Your task to perform on an android device: create a new album in the google photos Image 0: 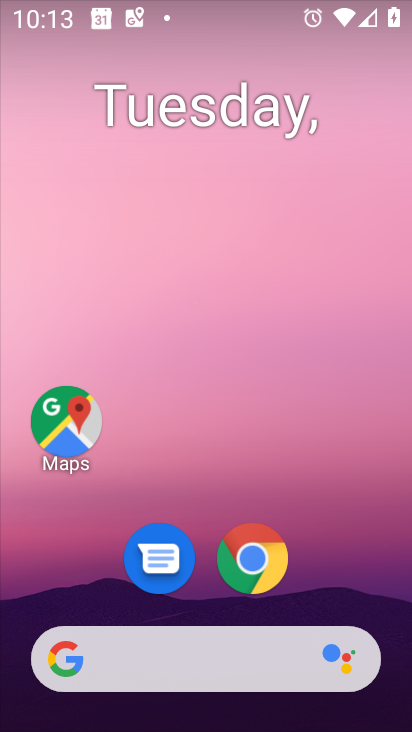
Step 0: drag from (347, 652) to (234, 124)
Your task to perform on an android device: create a new album in the google photos Image 1: 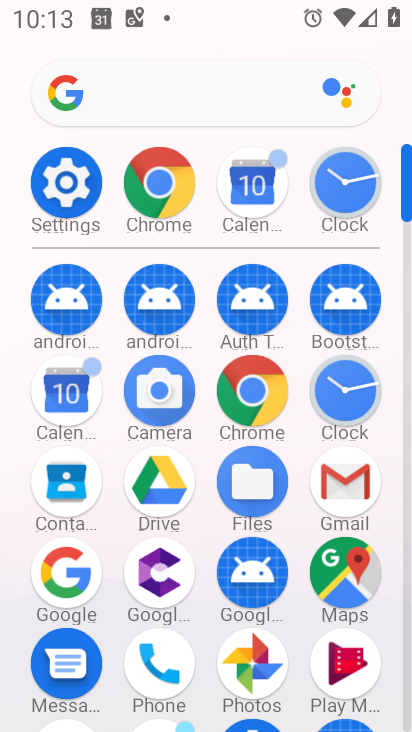
Step 1: click (258, 663)
Your task to perform on an android device: create a new album in the google photos Image 2: 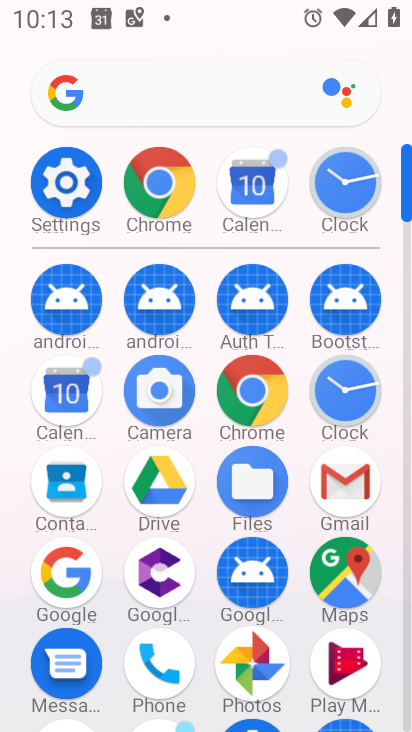
Step 2: click (257, 664)
Your task to perform on an android device: create a new album in the google photos Image 3: 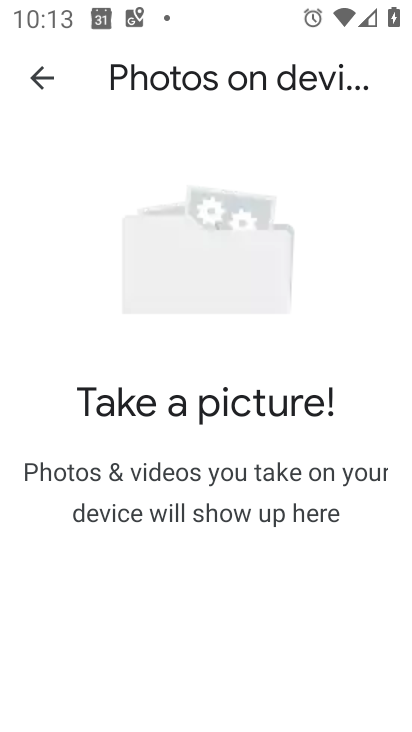
Step 3: click (255, 664)
Your task to perform on an android device: create a new album in the google photos Image 4: 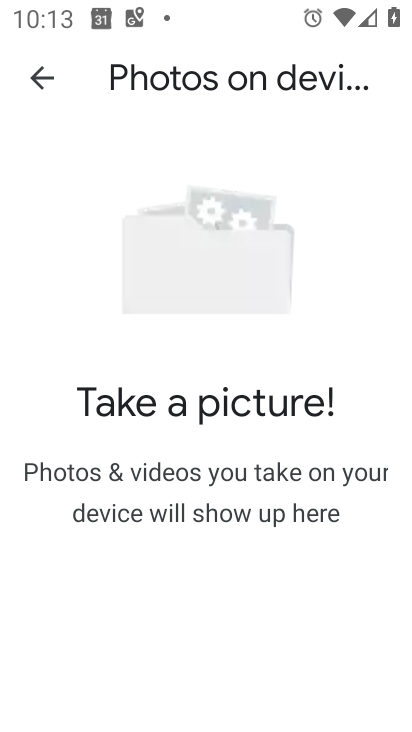
Step 4: click (38, 77)
Your task to perform on an android device: create a new album in the google photos Image 5: 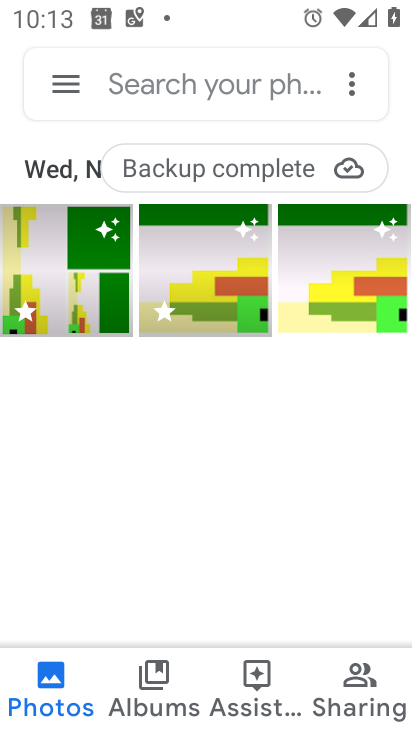
Step 5: click (178, 660)
Your task to perform on an android device: create a new album in the google photos Image 6: 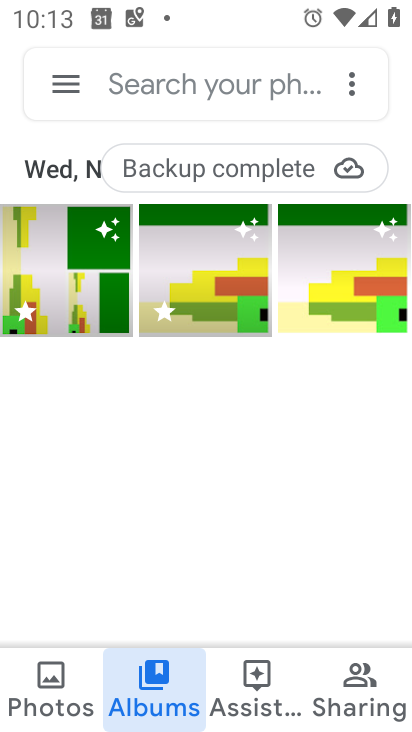
Step 6: click (161, 669)
Your task to perform on an android device: create a new album in the google photos Image 7: 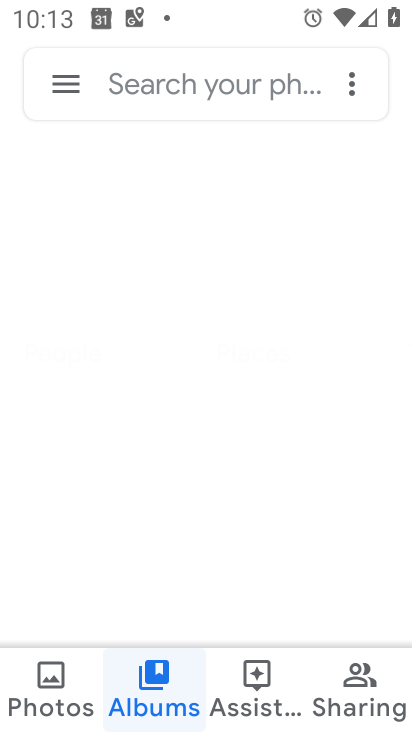
Step 7: click (156, 669)
Your task to perform on an android device: create a new album in the google photos Image 8: 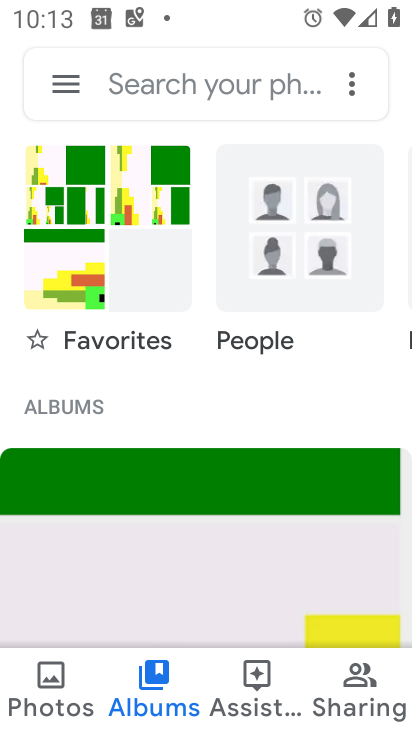
Step 8: click (163, 691)
Your task to perform on an android device: create a new album in the google photos Image 9: 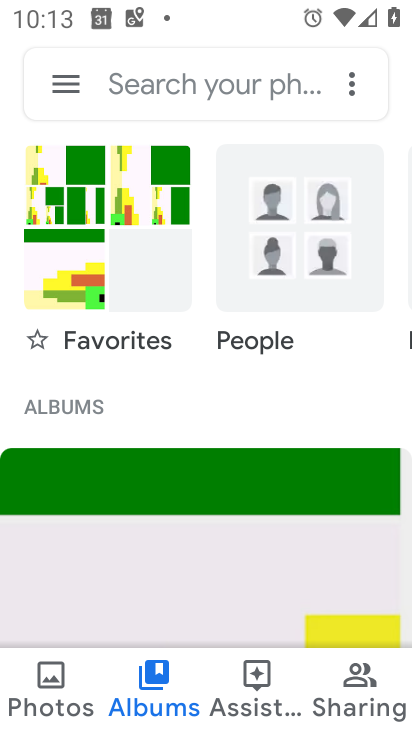
Step 9: click (160, 688)
Your task to perform on an android device: create a new album in the google photos Image 10: 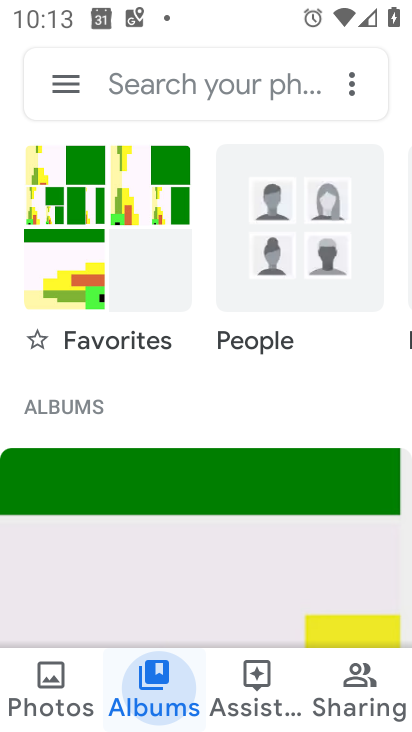
Step 10: click (161, 688)
Your task to perform on an android device: create a new album in the google photos Image 11: 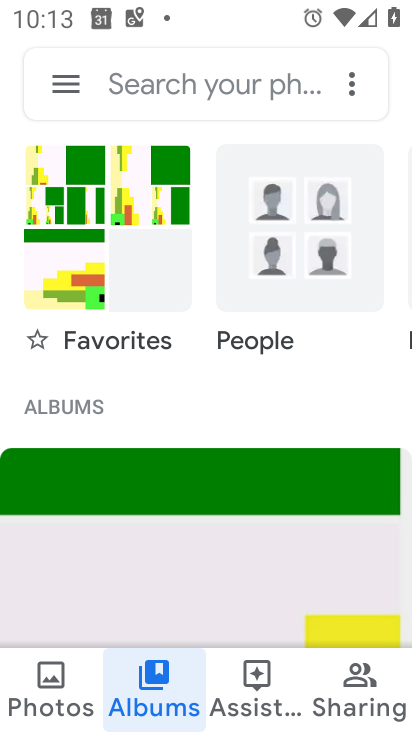
Step 11: click (162, 688)
Your task to perform on an android device: create a new album in the google photos Image 12: 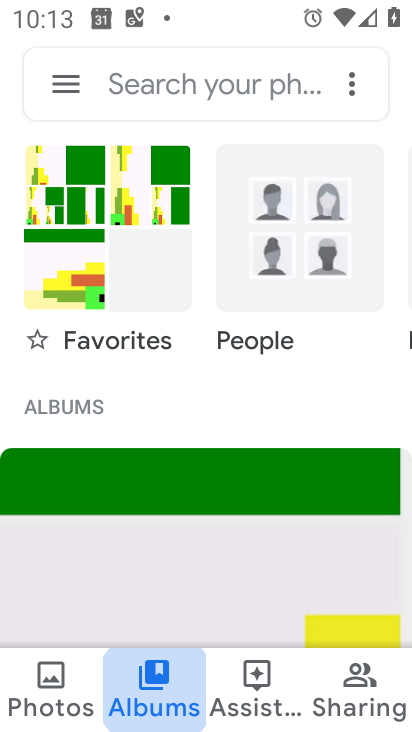
Step 12: click (164, 685)
Your task to perform on an android device: create a new album in the google photos Image 13: 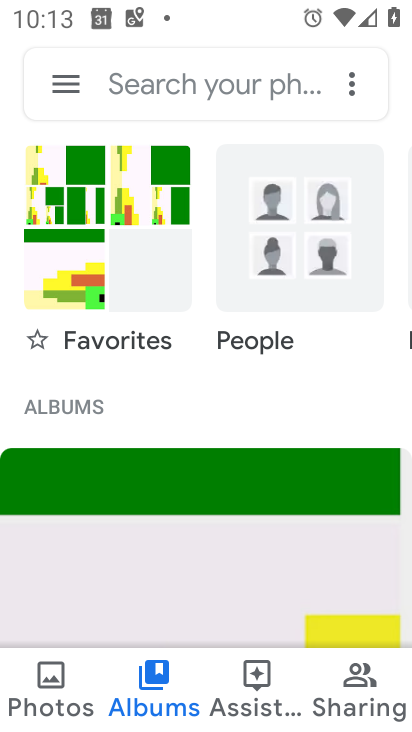
Step 13: drag from (235, 513) to (133, 31)
Your task to perform on an android device: create a new album in the google photos Image 14: 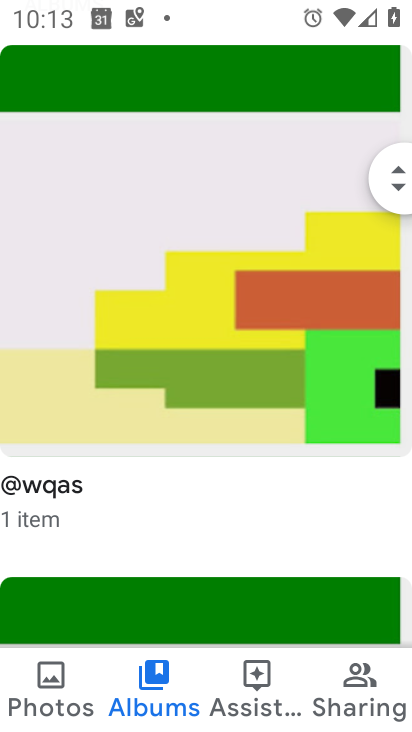
Step 14: drag from (259, 527) to (226, 228)
Your task to perform on an android device: create a new album in the google photos Image 15: 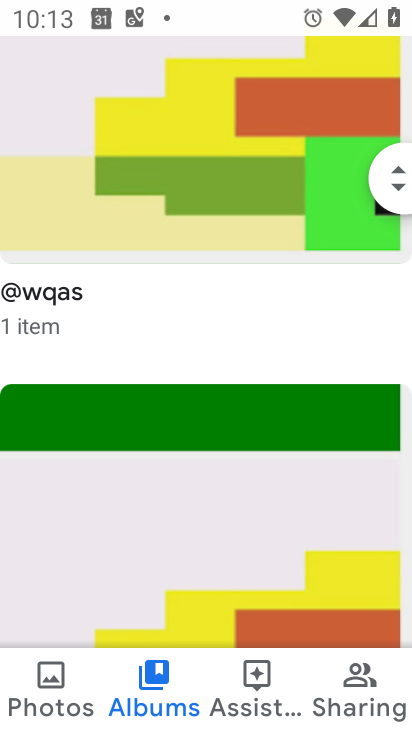
Step 15: drag from (251, 494) to (188, 225)
Your task to perform on an android device: create a new album in the google photos Image 16: 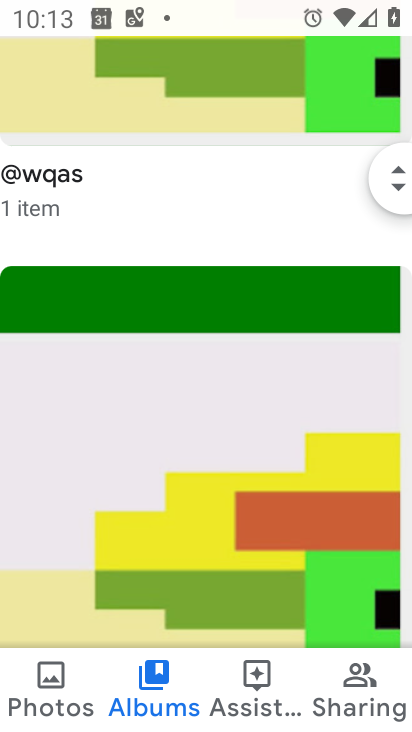
Step 16: drag from (209, 572) to (145, 68)
Your task to perform on an android device: create a new album in the google photos Image 17: 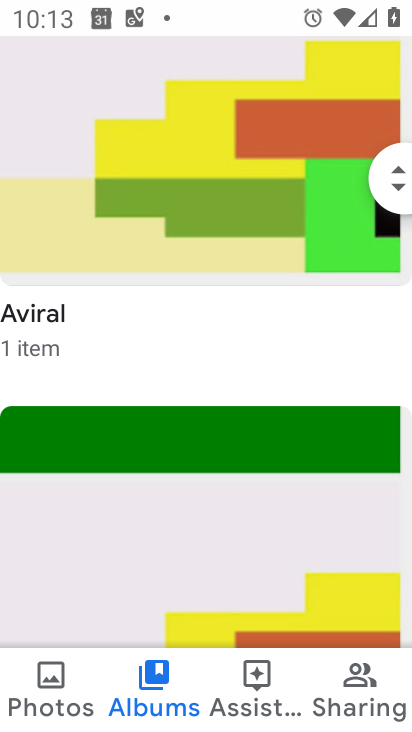
Step 17: drag from (171, 450) to (105, 58)
Your task to perform on an android device: create a new album in the google photos Image 18: 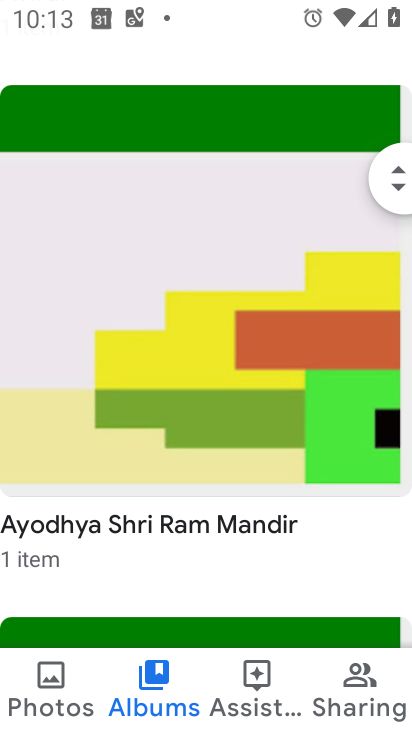
Step 18: drag from (176, 431) to (104, 8)
Your task to perform on an android device: create a new album in the google photos Image 19: 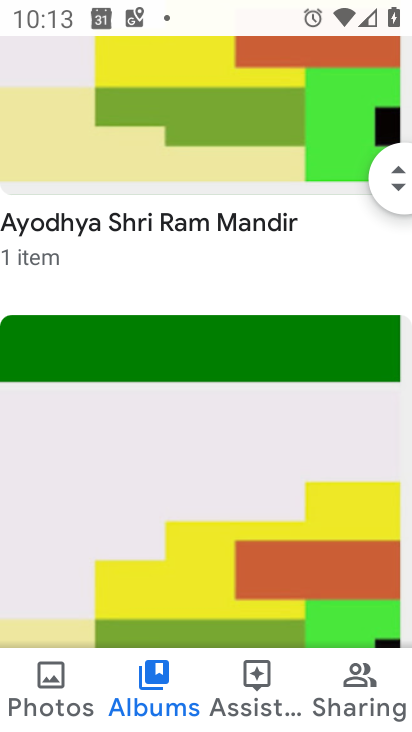
Step 19: drag from (135, 407) to (76, 67)
Your task to perform on an android device: create a new album in the google photos Image 20: 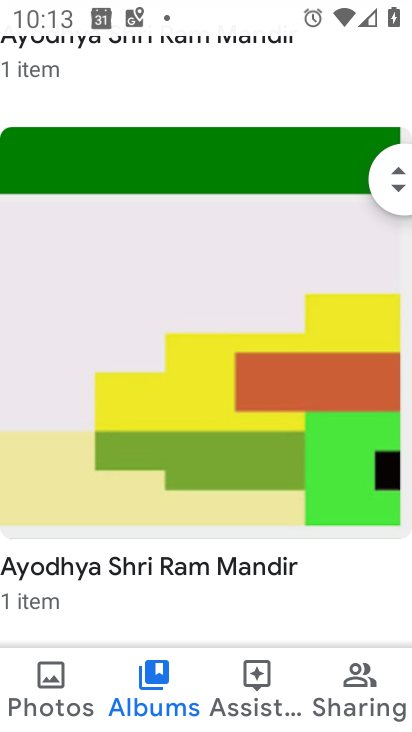
Step 20: drag from (182, 231) to (243, 503)
Your task to perform on an android device: create a new album in the google photos Image 21: 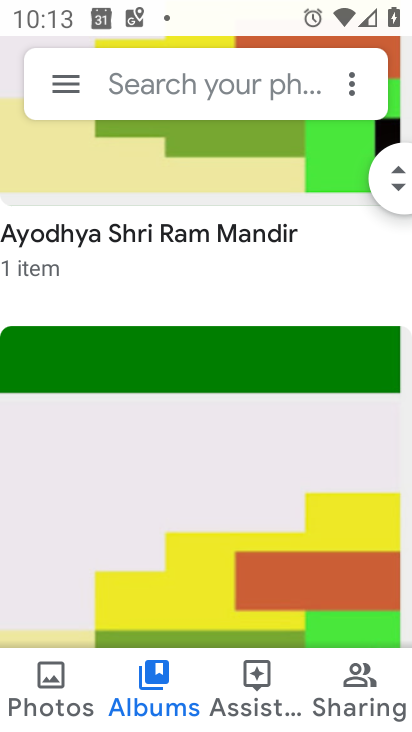
Step 21: drag from (295, 306) to (270, 537)
Your task to perform on an android device: create a new album in the google photos Image 22: 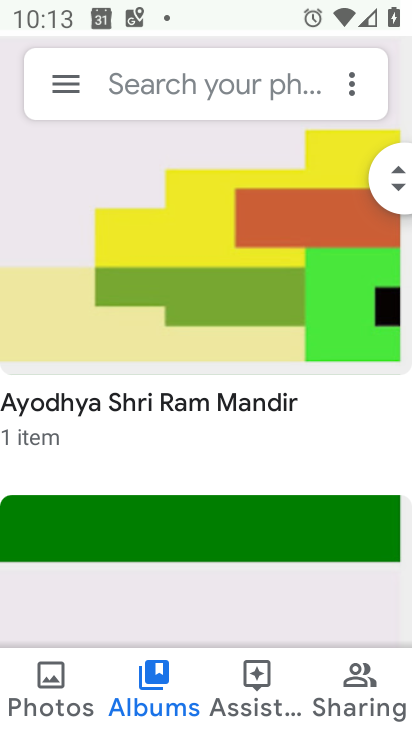
Step 22: drag from (264, 337) to (264, 525)
Your task to perform on an android device: create a new album in the google photos Image 23: 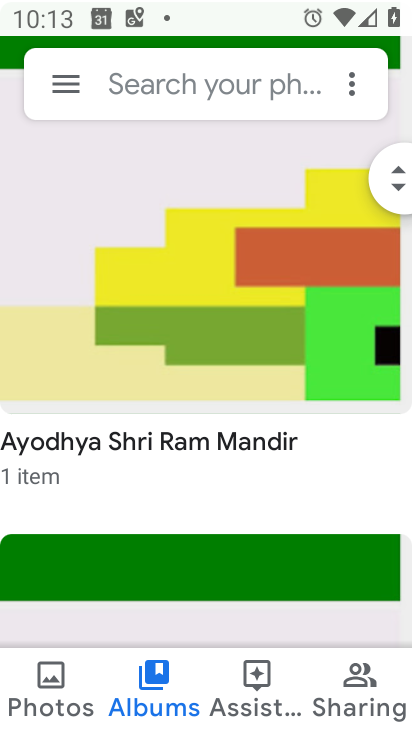
Step 23: click (290, 503)
Your task to perform on an android device: create a new album in the google photos Image 24: 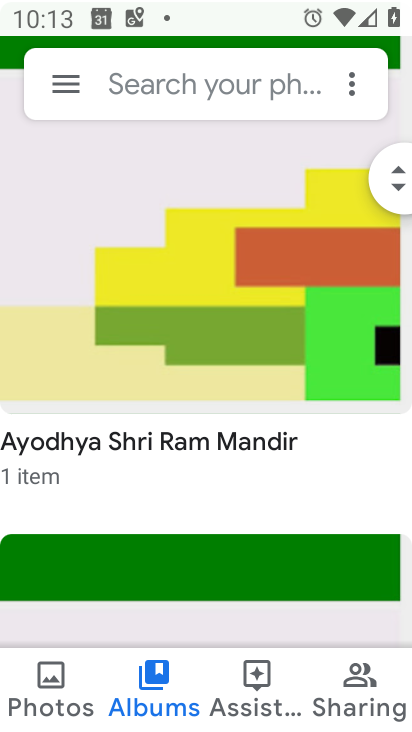
Step 24: click (309, 457)
Your task to perform on an android device: create a new album in the google photos Image 25: 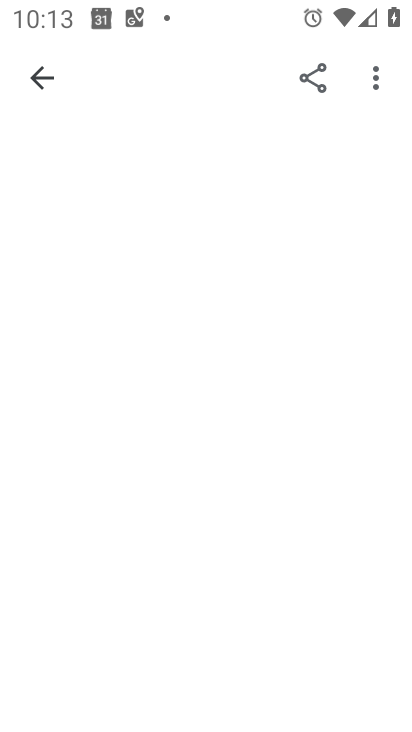
Step 25: click (342, 66)
Your task to perform on an android device: create a new album in the google photos Image 26: 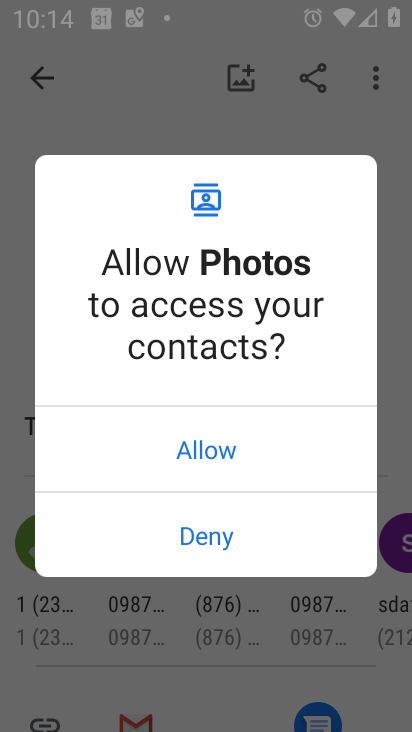
Step 26: click (51, 77)
Your task to perform on an android device: create a new album in the google photos Image 27: 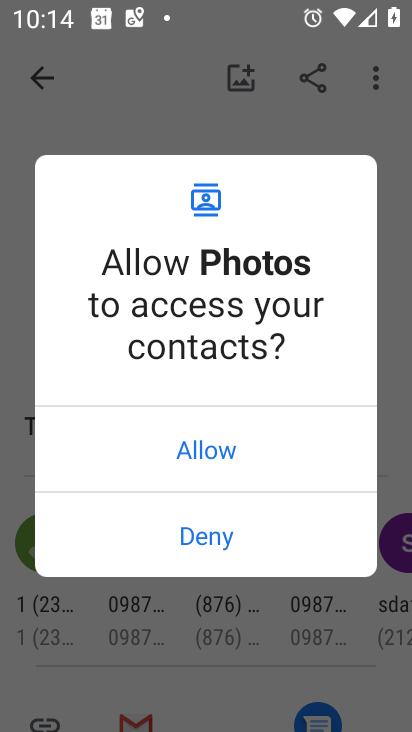
Step 27: click (48, 80)
Your task to perform on an android device: create a new album in the google photos Image 28: 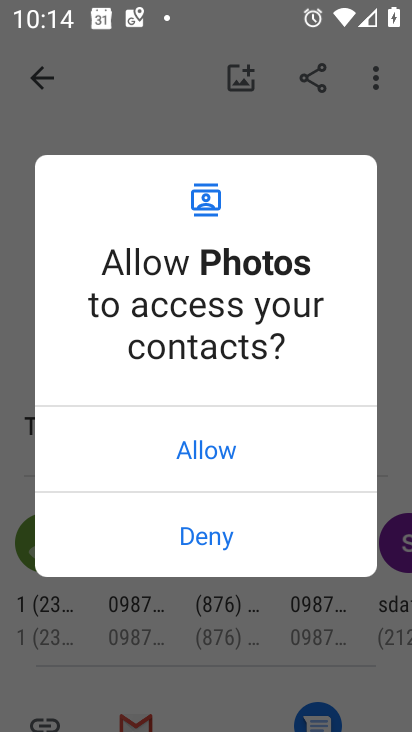
Step 28: click (38, 79)
Your task to perform on an android device: create a new album in the google photos Image 29: 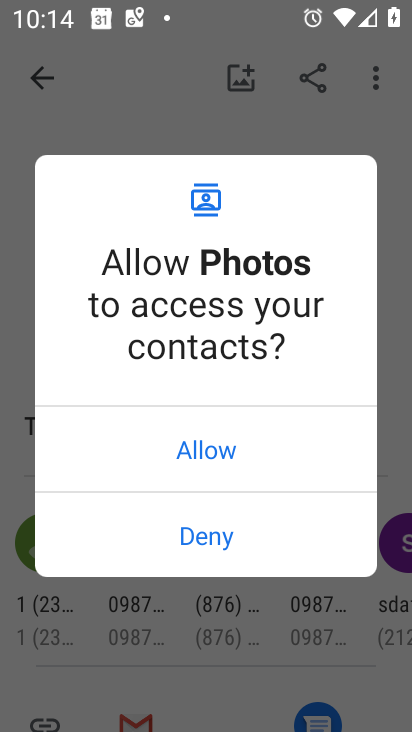
Step 29: click (38, 79)
Your task to perform on an android device: create a new album in the google photos Image 30: 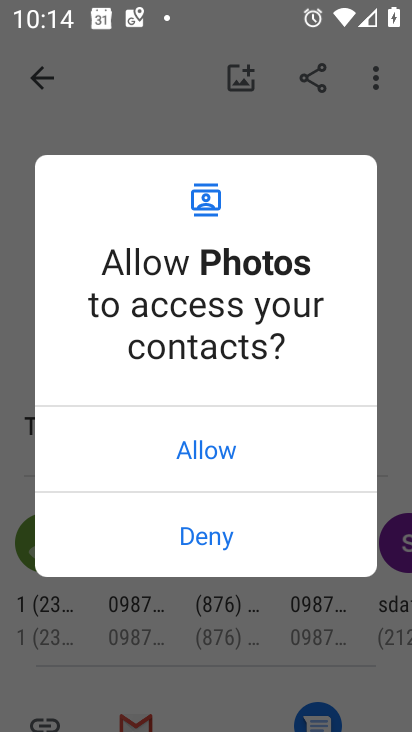
Step 30: click (37, 78)
Your task to perform on an android device: create a new album in the google photos Image 31: 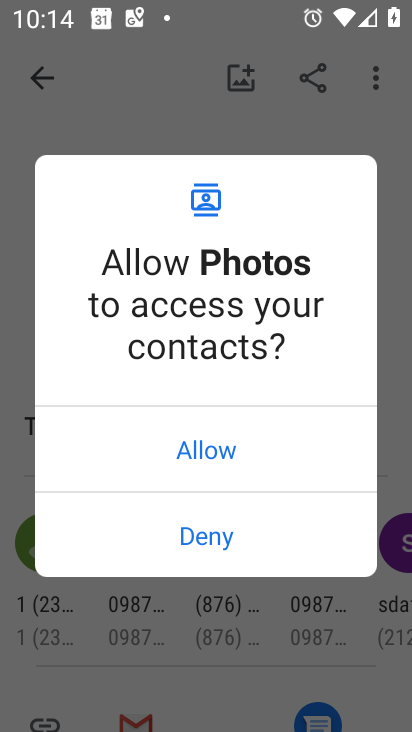
Step 31: drag from (40, 82) to (135, 291)
Your task to perform on an android device: create a new album in the google photos Image 32: 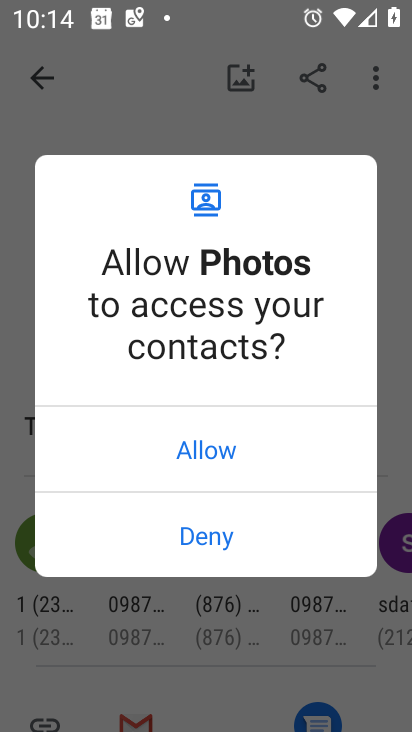
Step 32: click (216, 446)
Your task to perform on an android device: create a new album in the google photos Image 33: 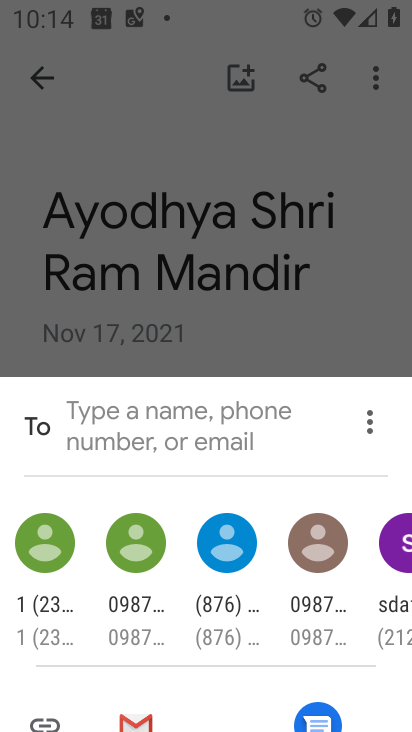
Step 33: click (40, 71)
Your task to perform on an android device: create a new album in the google photos Image 34: 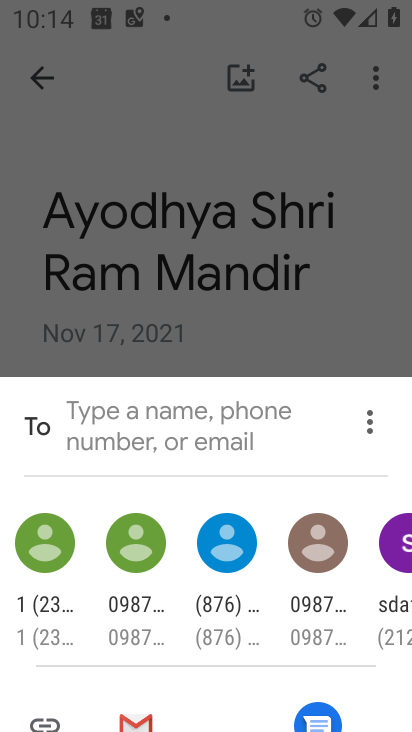
Step 34: click (39, 76)
Your task to perform on an android device: create a new album in the google photos Image 35: 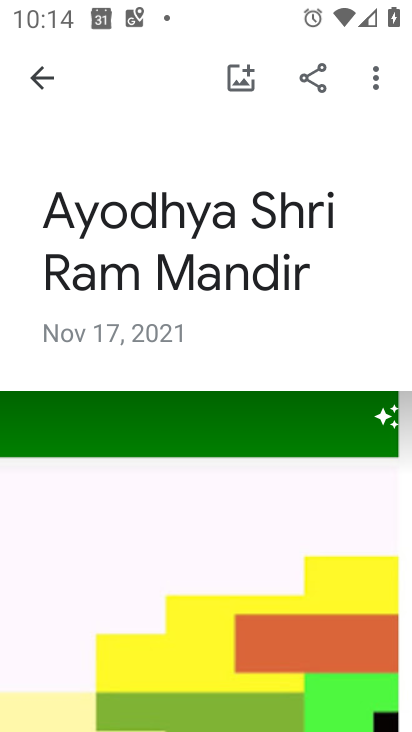
Step 35: click (39, 76)
Your task to perform on an android device: create a new album in the google photos Image 36: 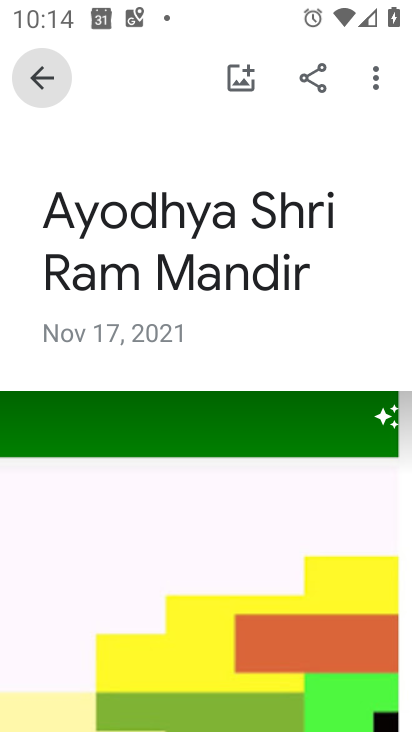
Step 36: click (39, 81)
Your task to perform on an android device: create a new album in the google photos Image 37: 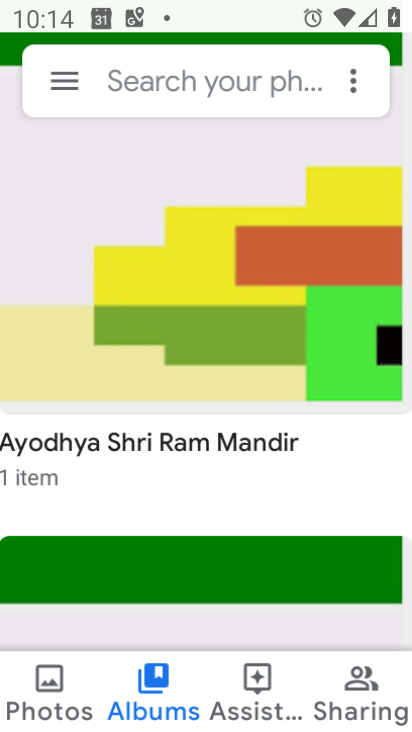
Step 37: click (39, 81)
Your task to perform on an android device: create a new album in the google photos Image 38: 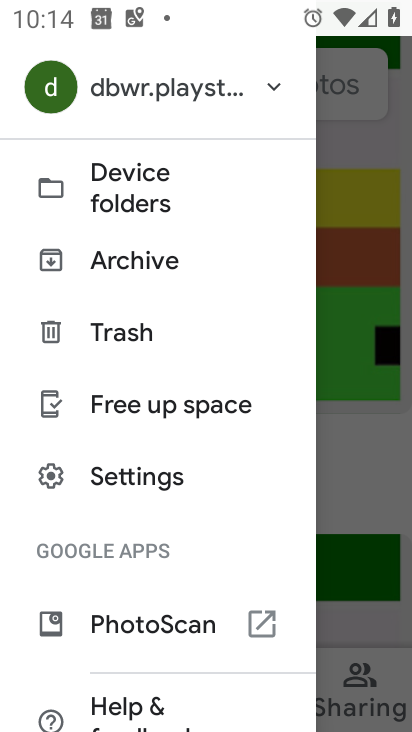
Step 38: click (371, 175)
Your task to perform on an android device: create a new album in the google photos Image 39: 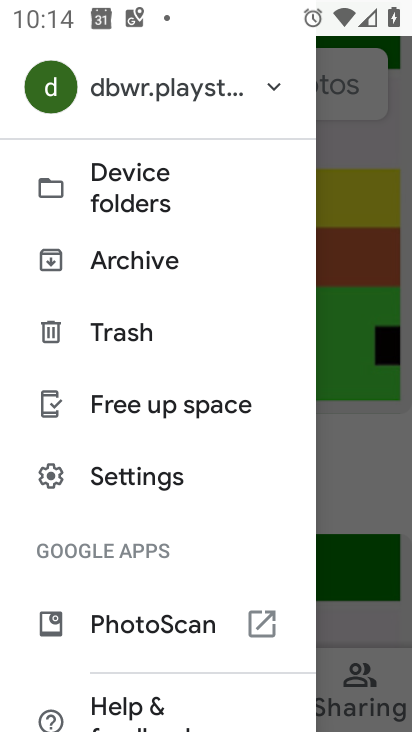
Step 39: click (371, 175)
Your task to perform on an android device: create a new album in the google photos Image 40: 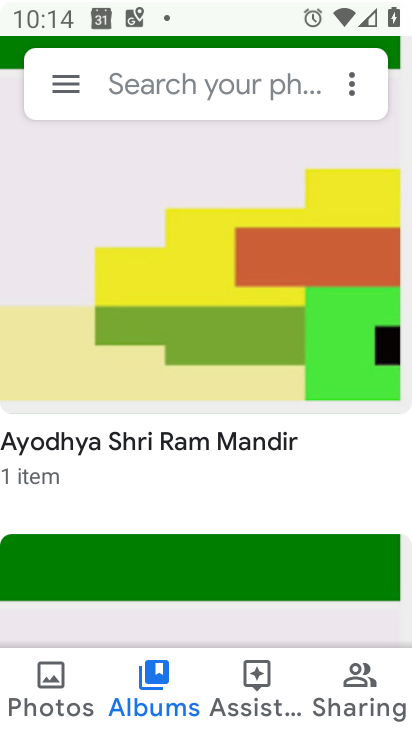
Step 40: press back button
Your task to perform on an android device: create a new album in the google photos Image 41: 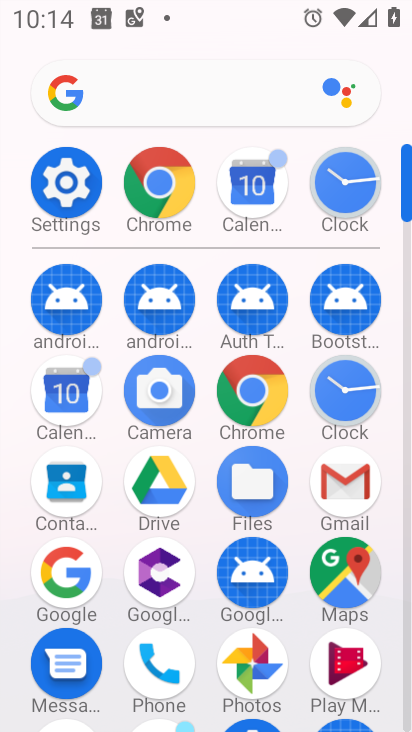
Step 41: click (262, 631)
Your task to perform on an android device: create a new album in the google photos Image 42: 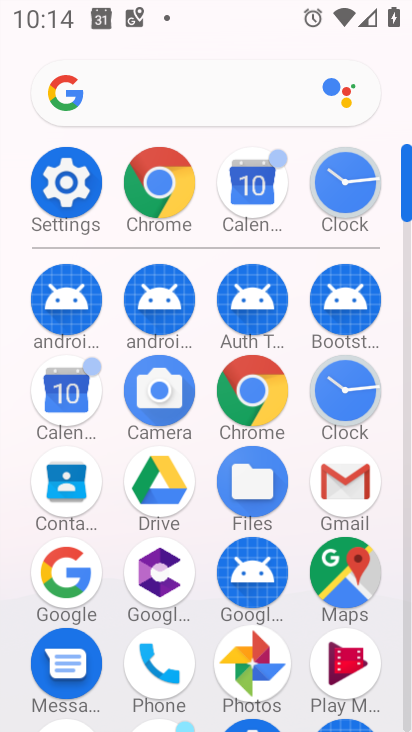
Step 42: click (256, 635)
Your task to perform on an android device: create a new album in the google photos Image 43: 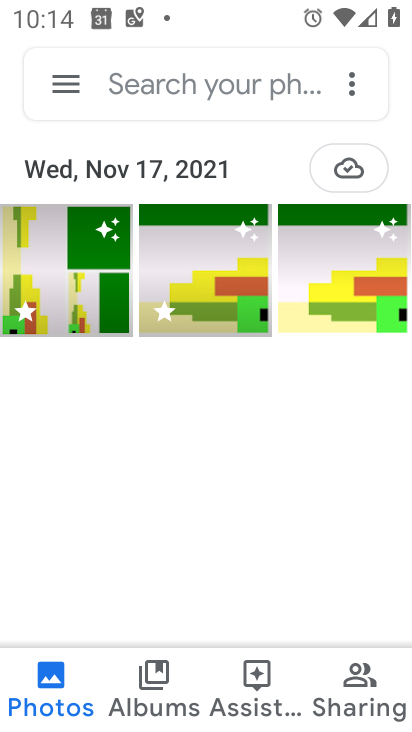
Step 43: click (157, 691)
Your task to perform on an android device: create a new album in the google photos Image 44: 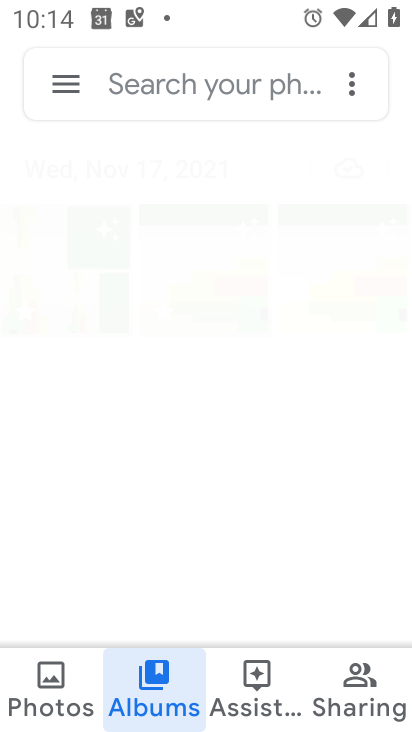
Step 44: click (159, 684)
Your task to perform on an android device: create a new album in the google photos Image 45: 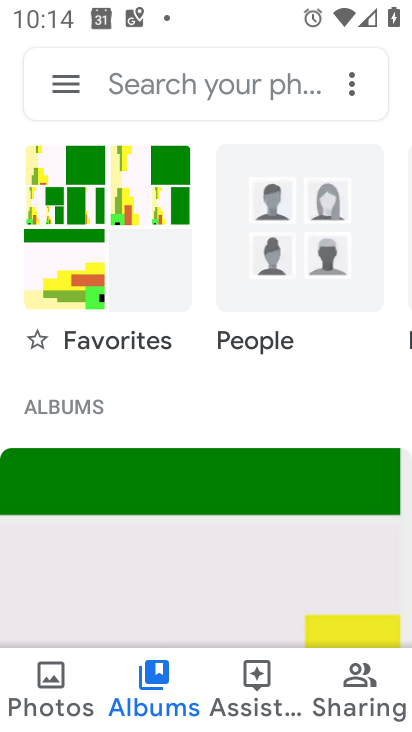
Step 45: click (348, 92)
Your task to perform on an android device: create a new album in the google photos Image 46: 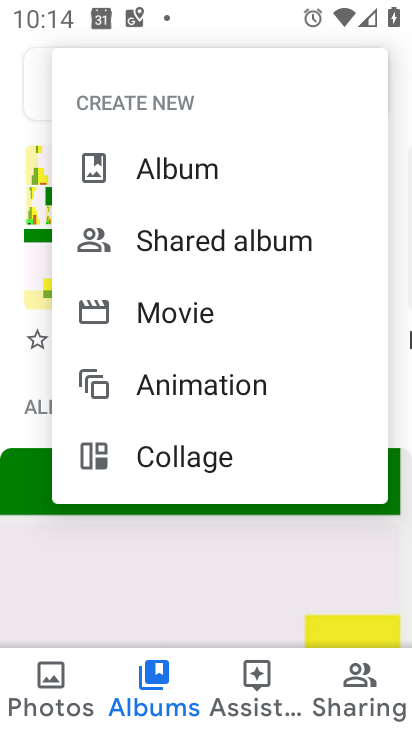
Step 46: click (185, 169)
Your task to perform on an android device: create a new album in the google photos Image 47: 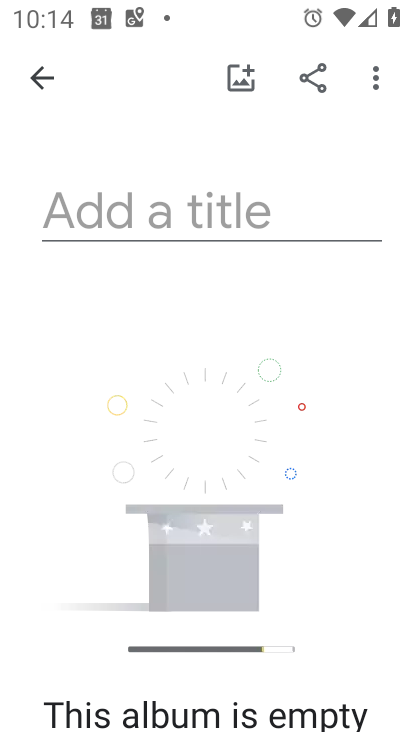
Step 47: click (86, 164)
Your task to perform on an android device: create a new album in the google photos Image 48: 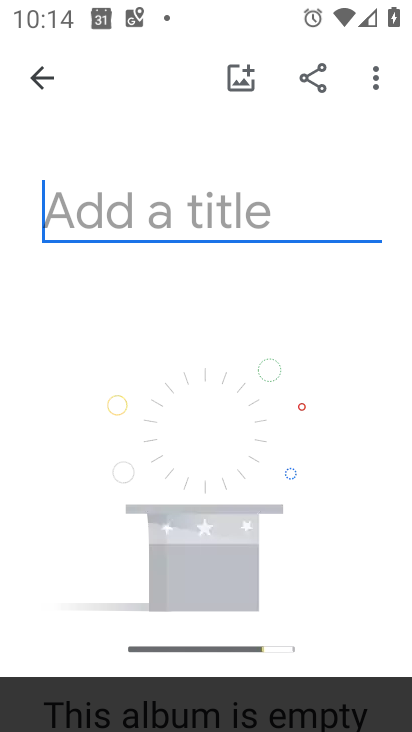
Step 48: click (83, 218)
Your task to perform on an android device: create a new album in the google photos Image 49: 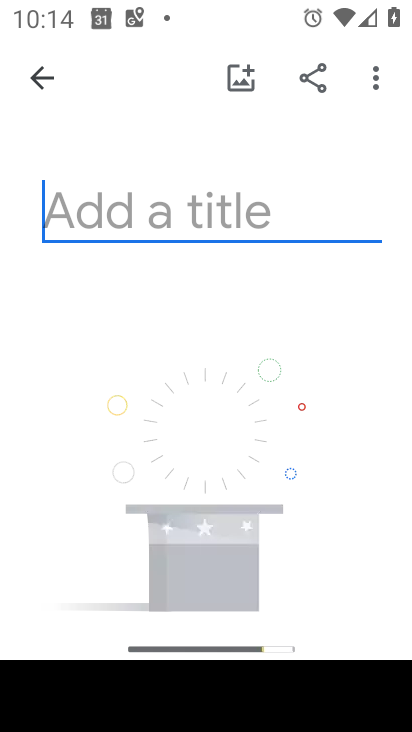
Step 49: type "shri ram temple"
Your task to perform on an android device: create a new album in the google photos Image 50: 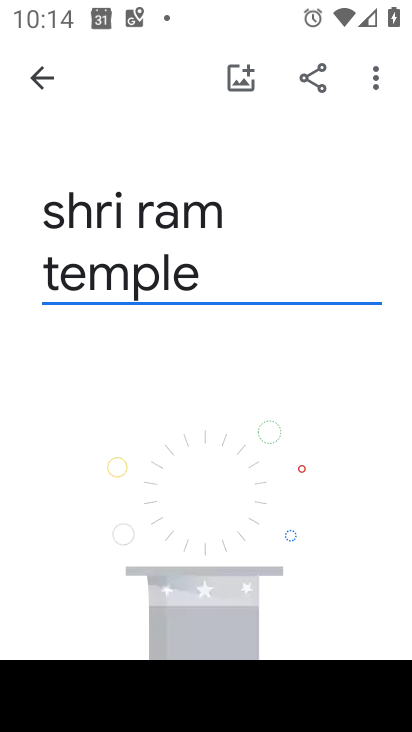
Step 50: drag from (257, 422) to (254, 24)
Your task to perform on an android device: create a new album in the google photos Image 51: 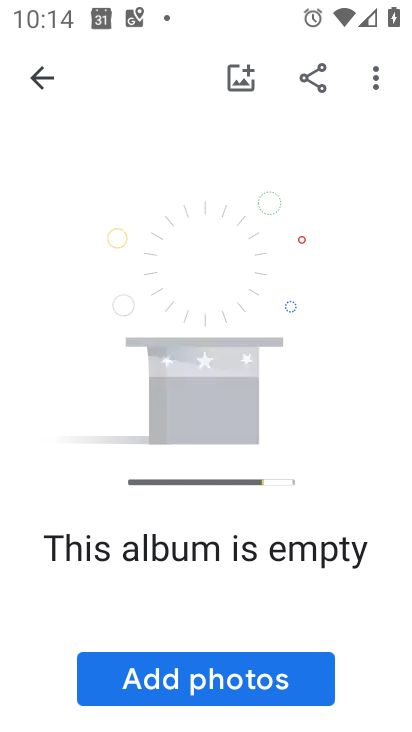
Step 51: drag from (302, 372) to (259, 10)
Your task to perform on an android device: create a new album in the google photos Image 52: 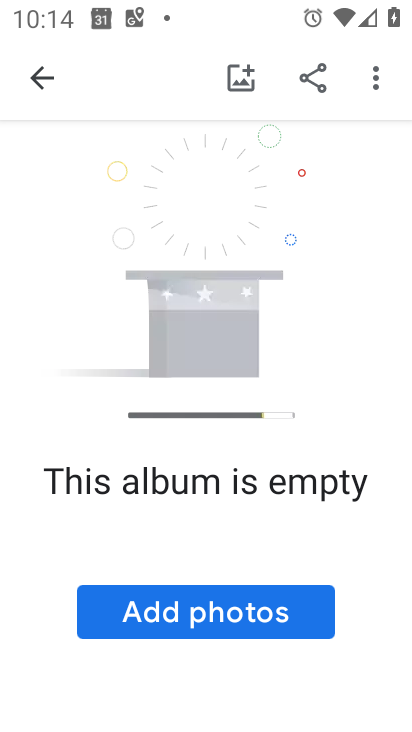
Step 52: click (214, 613)
Your task to perform on an android device: create a new album in the google photos Image 53: 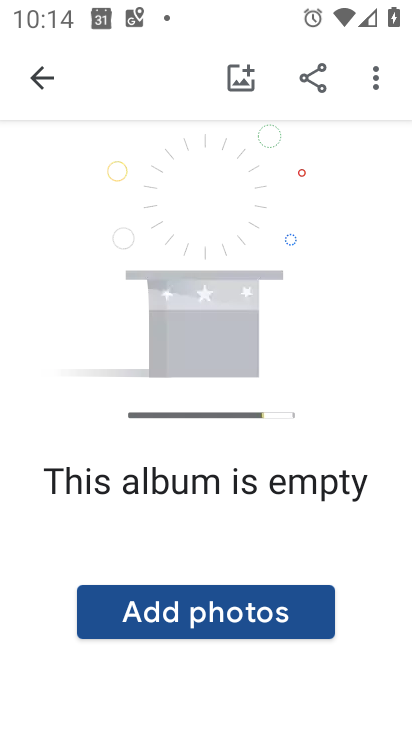
Step 53: click (214, 613)
Your task to perform on an android device: create a new album in the google photos Image 54: 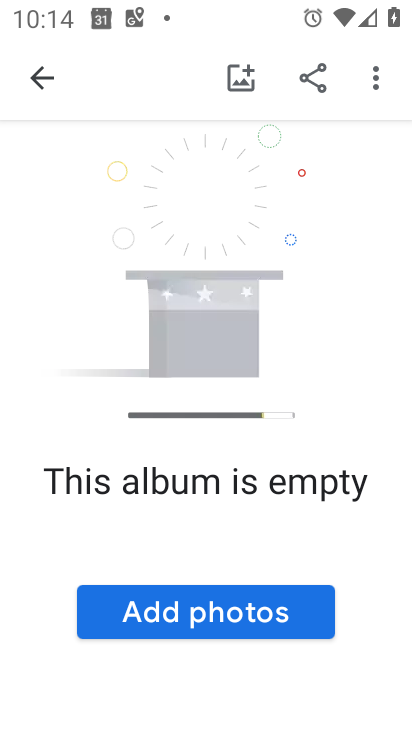
Step 54: click (214, 613)
Your task to perform on an android device: create a new album in the google photos Image 55: 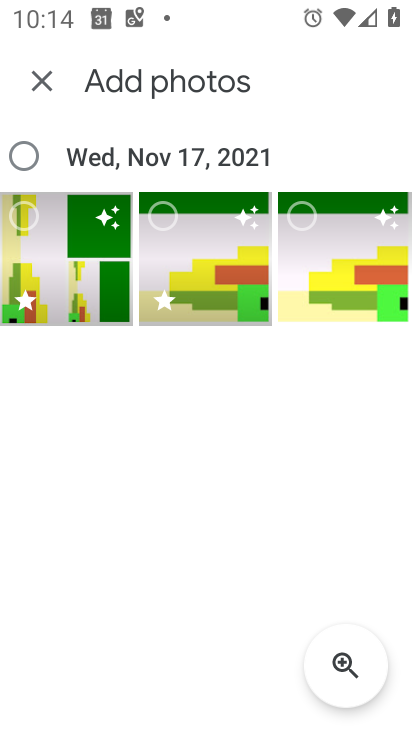
Step 55: click (16, 160)
Your task to perform on an android device: create a new album in the google photos Image 56: 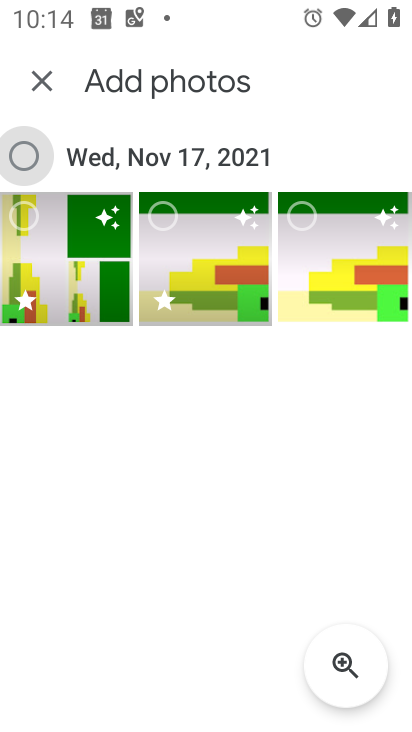
Step 56: click (16, 160)
Your task to perform on an android device: create a new album in the google photos Image 57: 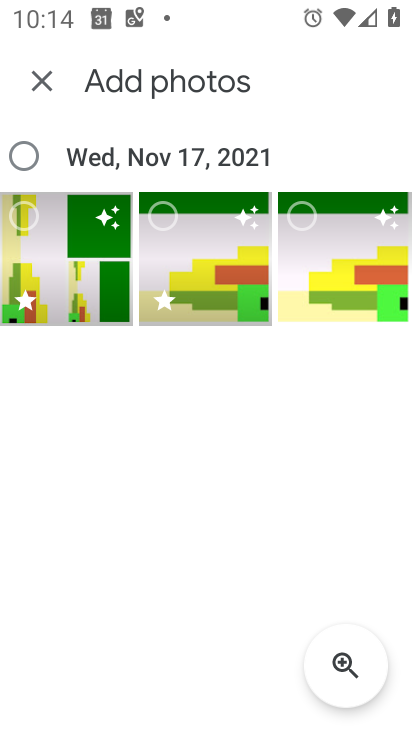
Step 57: click (13, 169)
Your task to perform on an android device: create a new album in the google photos Image 58: 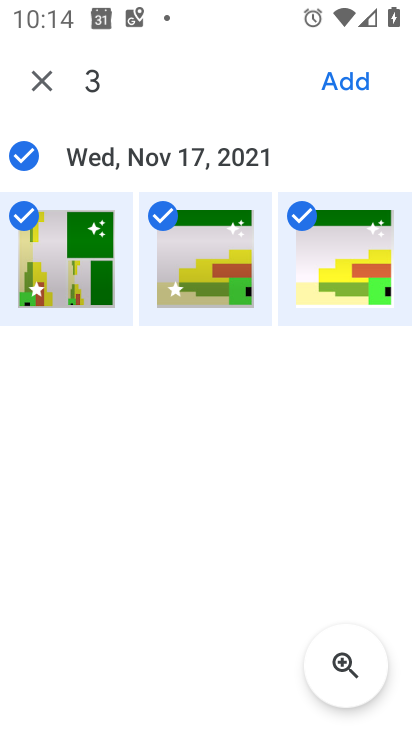
Step 58: click (356, 90)
Your task to perform on an android device: create a new album in the google photos Image 59: 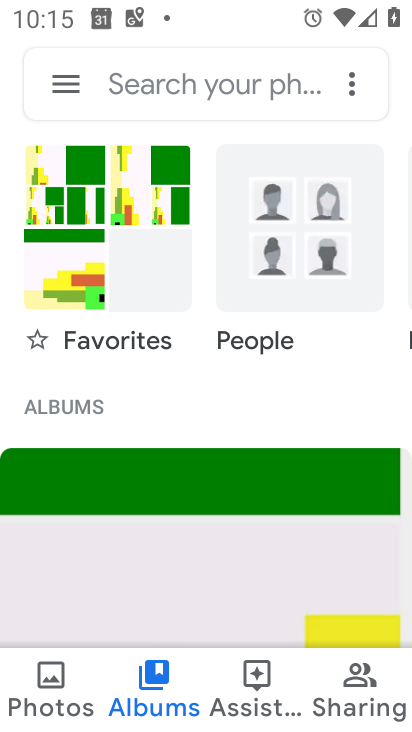
Step 59: drag from (277, 576) to (139, 119)
Your task to perform on an android device: create a new album in the google photos Image 60: 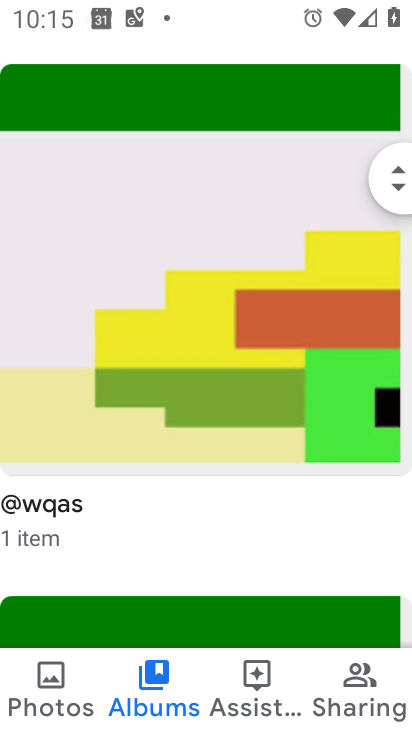
Step 60: drag from (250, 499) to (180, 120)
Your task to perform on an android device: create a new album in the google photos Image 61: 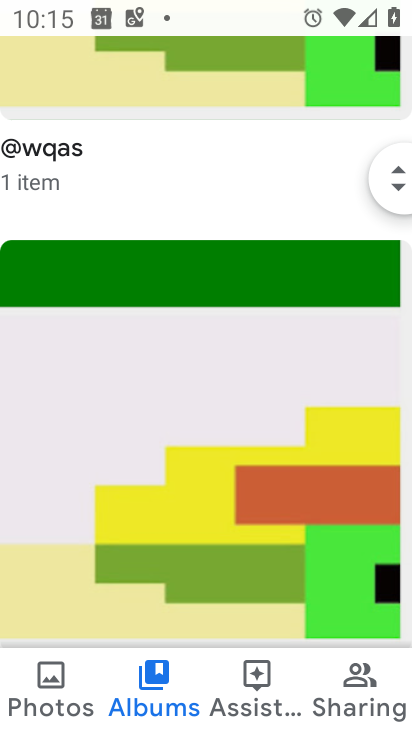
Step 61: drag from (237, 260) to (265, 683)
Your task to perform on an android device: create a new album in the google photos Image 62: 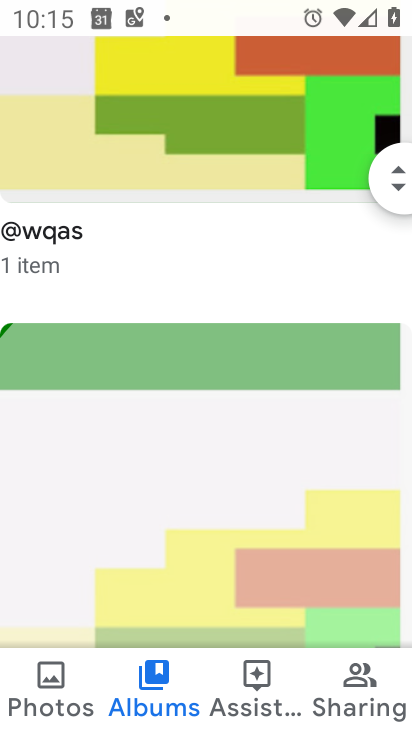
Step 62: drag from (285, 169) to (333, 585)
Your task to perform on an android device: create a new album in the google photos Image 63: 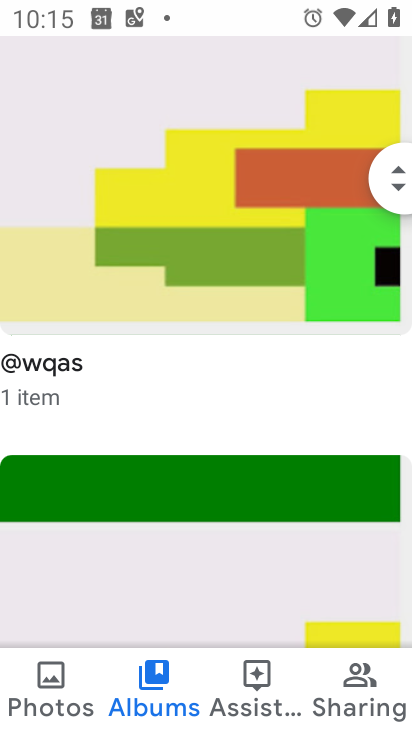
Step 63: drag from (245, 114) to (301, 594)
Your task to perform on an android device: create a new album in the google photos Image 64: 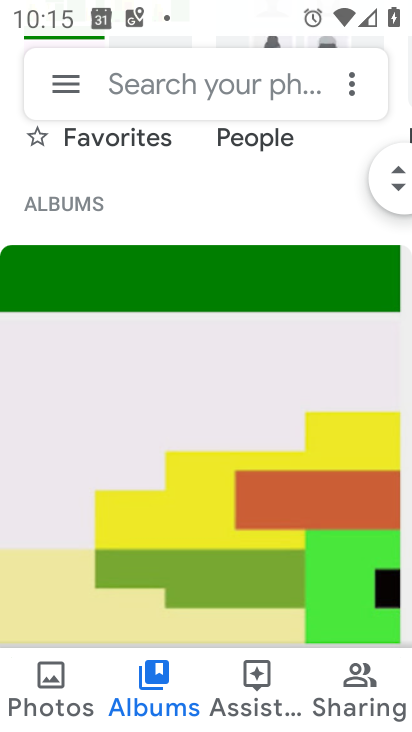
Step 64: press home button
Your task to perform on an android device: create a new album in the google photos Image 65: 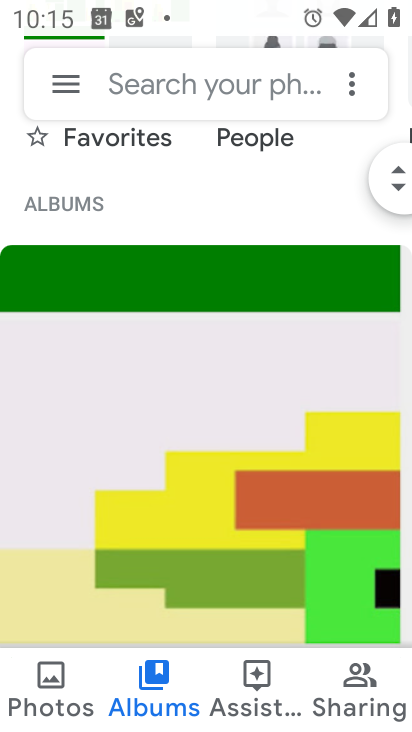
Step 65: press home button
Your task to perform on an android device: create a new album in the google photos Image 66: 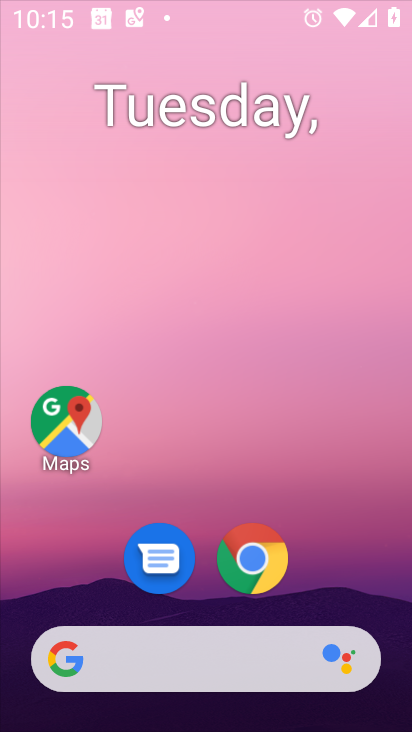
Step 66: press home button
Your task to perform on an android device: create a new album in the google photos Image 67: 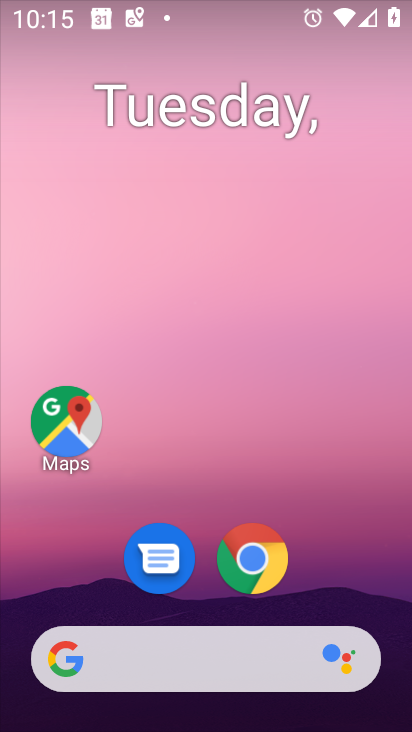
Step 67: press home button
Your task to perform on an android device: create a new album in the google photos Image 68: 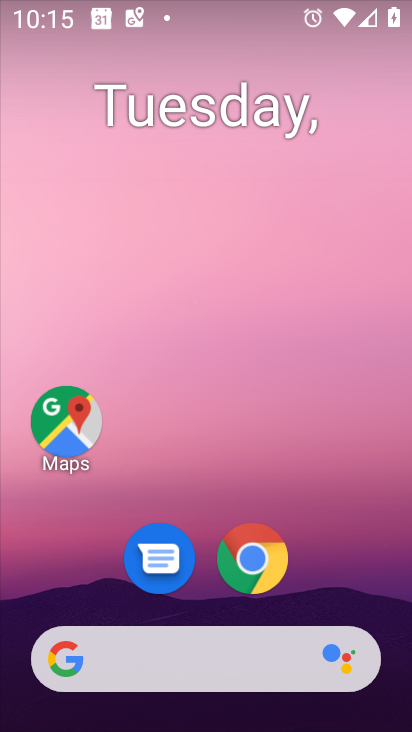
Step 68: drag from (337, 602) to (182, 14)
Your task to perform on an android device: create a new album in the google photos Image 69: 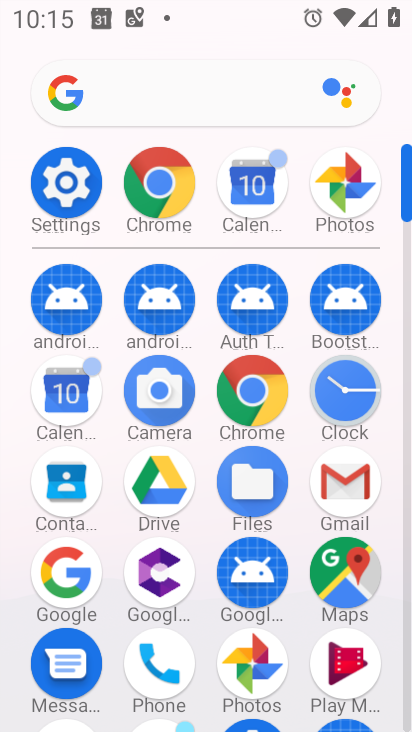
Step 69: click (355, 177)
Your task to perform on an android device: create a new album in the google photos Image 70: 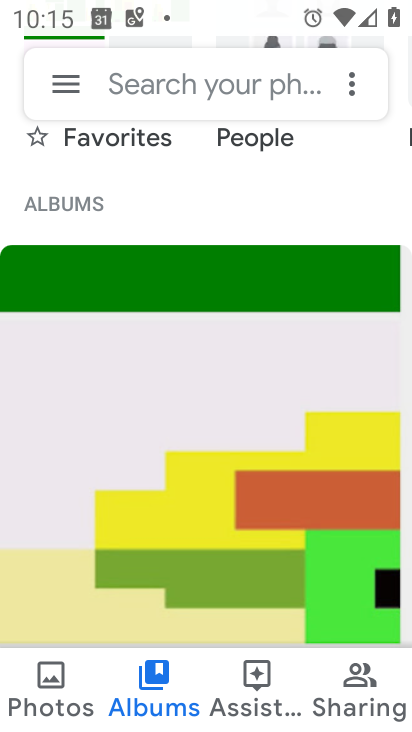
Step 70: click (354, 82)
Your task to perform on an android device: create a new album in the google photos Image 71: 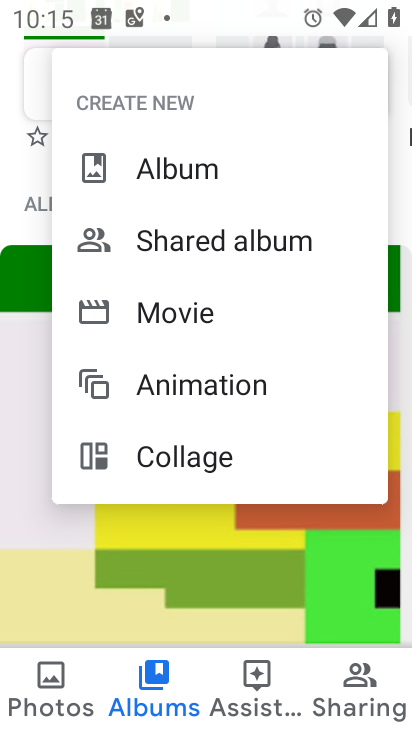
Step 71: click (158, 109)
Your task to perform on an android device: create a new album in the google photos Image 72: 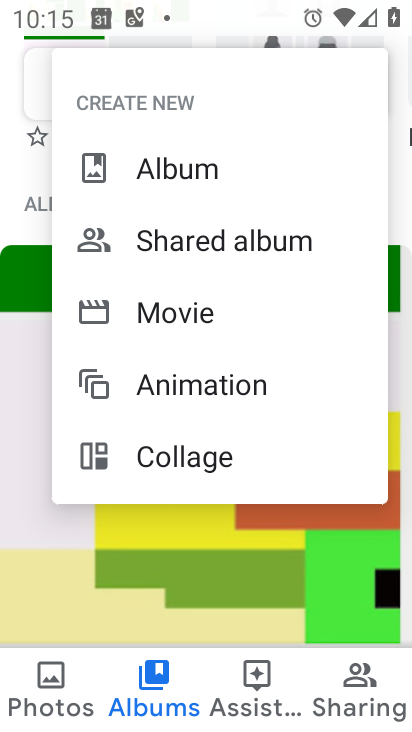
Step 72: click (152, 161)
Your task to perform on an android device: create a new album in the google photos Image 73: 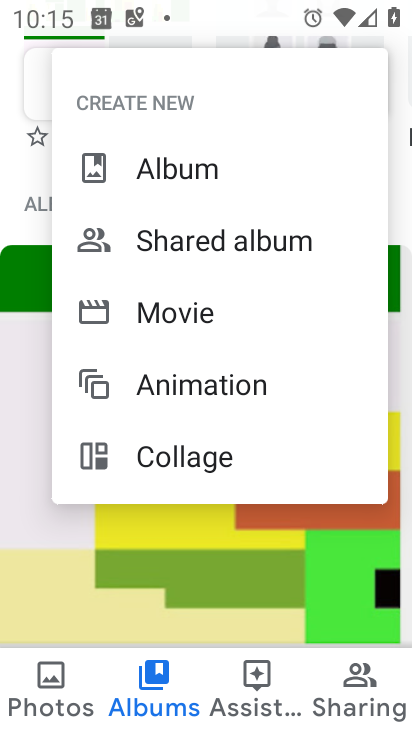
Step 73: click (152, 168)
Your task to perform on an android device: create a new album in the google photos Image 74: 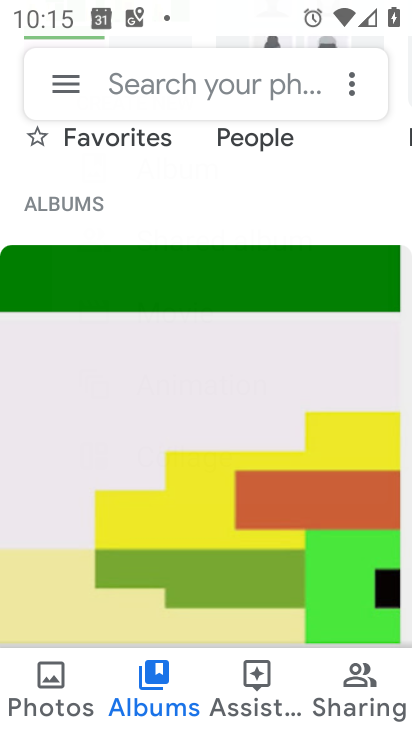
Step 74: click (152, 179)
Your task to perform on an android device: create a new album in the google photos Image 75: 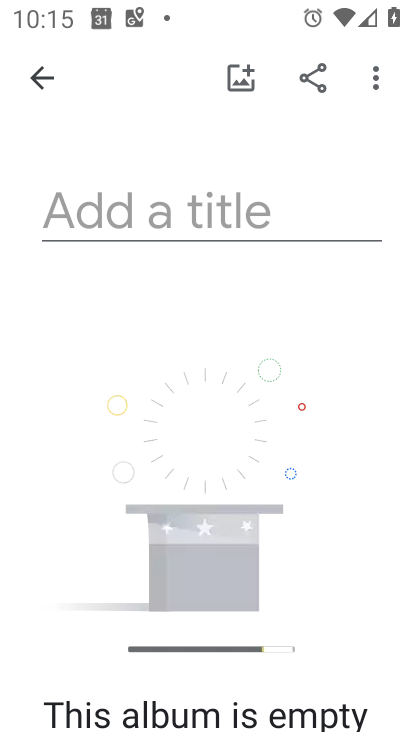
Step 75: click (97, 218)
Your task to perform on an android device: create a new album in the google photos Image 76: 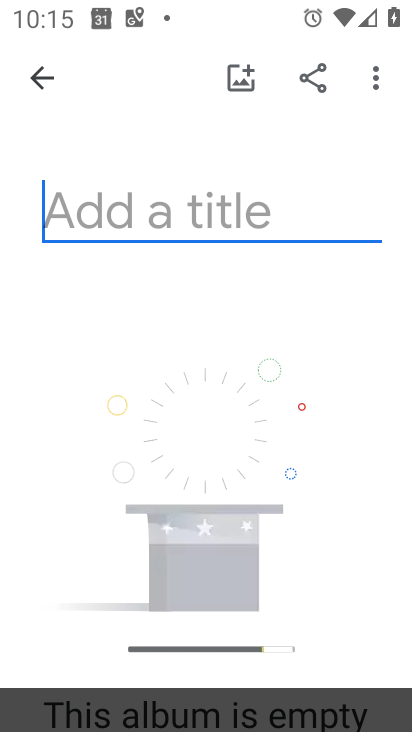
Step 76: click (97, 214)
Your task to perform on an android device: create a new album in the google photos Image 77: 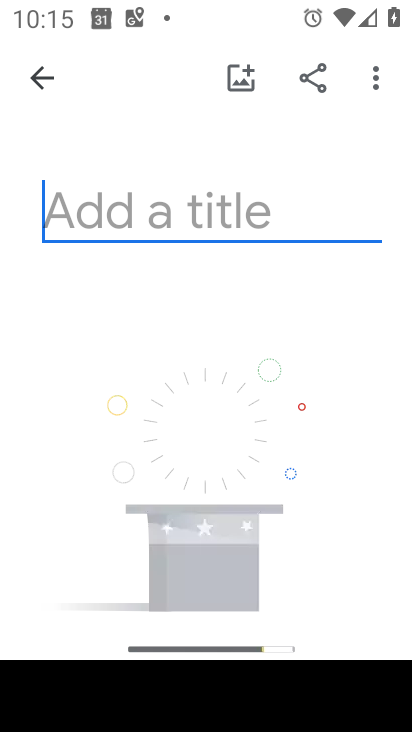
Step 77: click (97, 214)
Your task to perform on an android device: create a new album in the google photos Image 78: 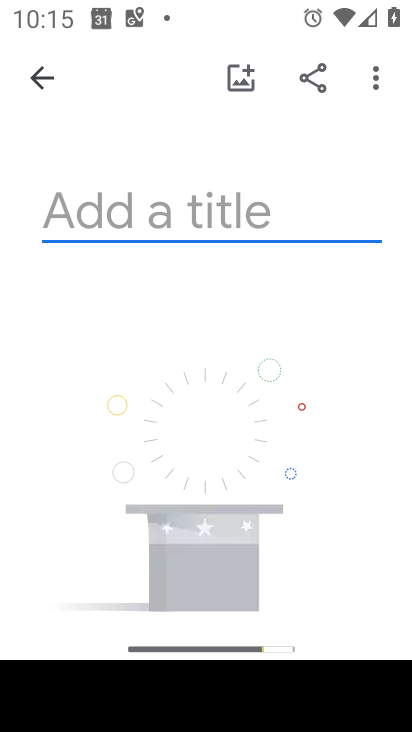
Step 78: type "ayodhya"
Your task to perform on an android device: create a new album in the google photos Image 79: 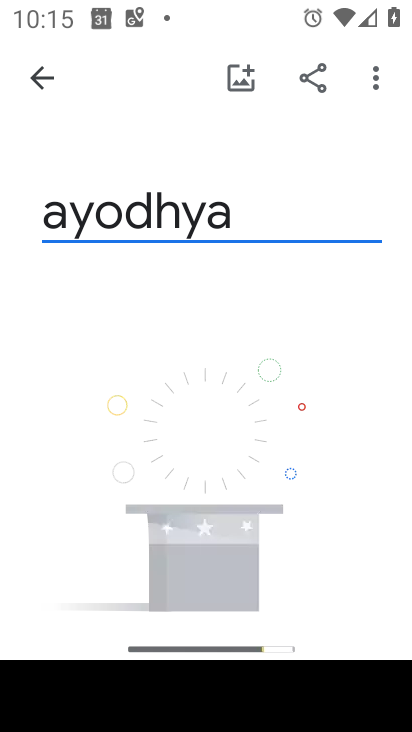
Step 79: drag from (224, 360) to (242, 99)
Your task to perform on an android device: create a new album in the google photos Image 80: 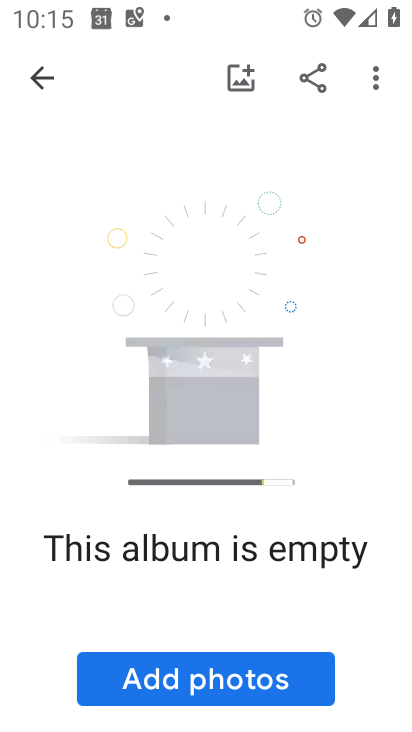
Step 80: drag from (224, 449) to (251, 57)
Your task to perform on an android device: create a new album in the google photos Image 81: 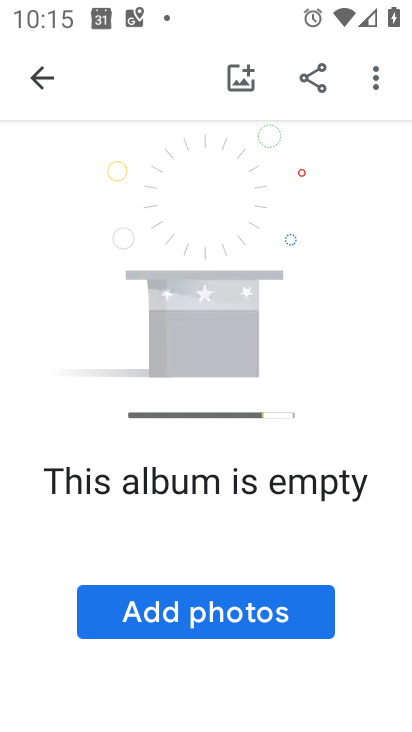
Step 81: click (227, 622)
Your task to perform on an android device: create a new album in the google photos Image 82: 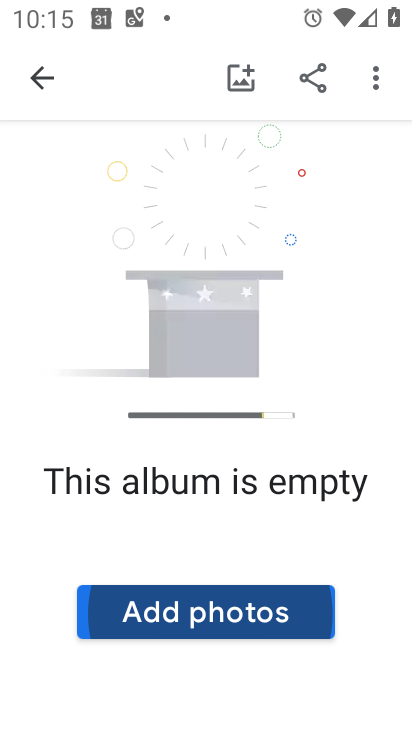
Step 82: click (228, 622)
Your task to perform on an android device: create a new album in the google photos Image 83: 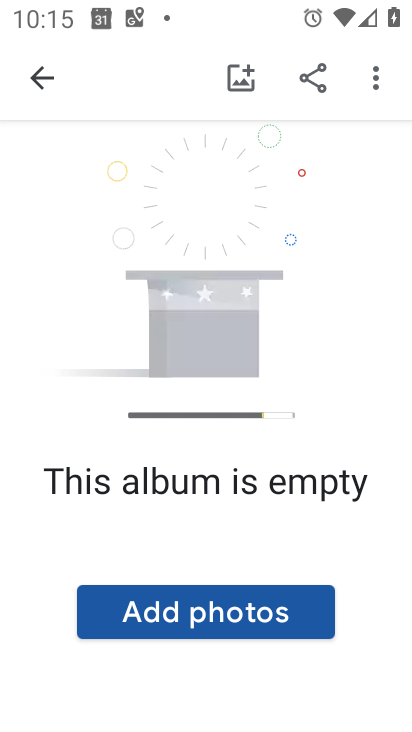
Step 83: click (231, 620)
Your task to perform on an android device: create a new album in the google photos Image 84: 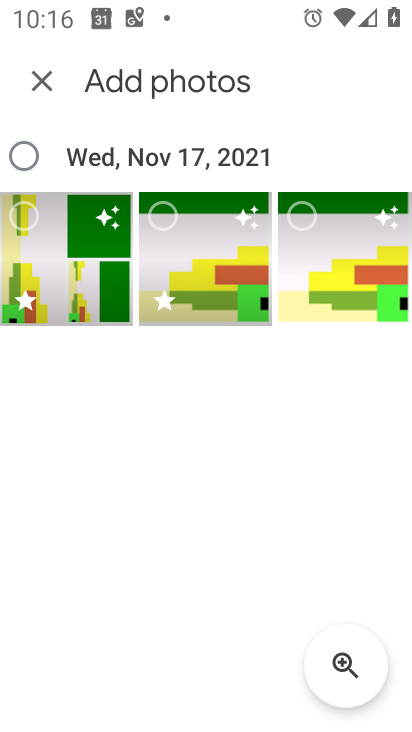
Step 84: click (27, 152)
Your task to perform on an android device: create a new album in the google photos Image 85: 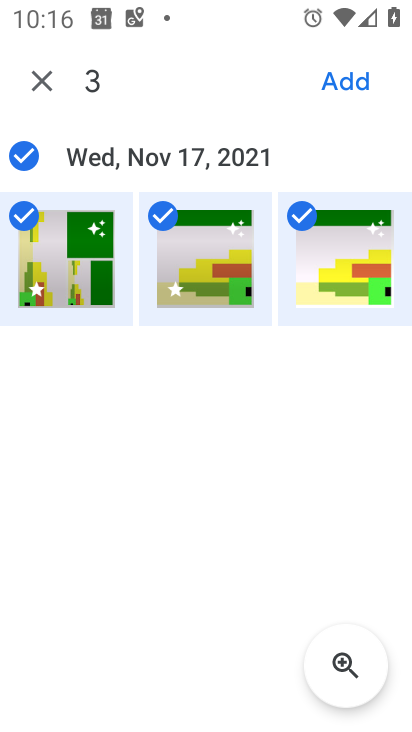
Step 85: click (351, 88)
Your task to perform on an android device: create a new album in the google photos Image 86: 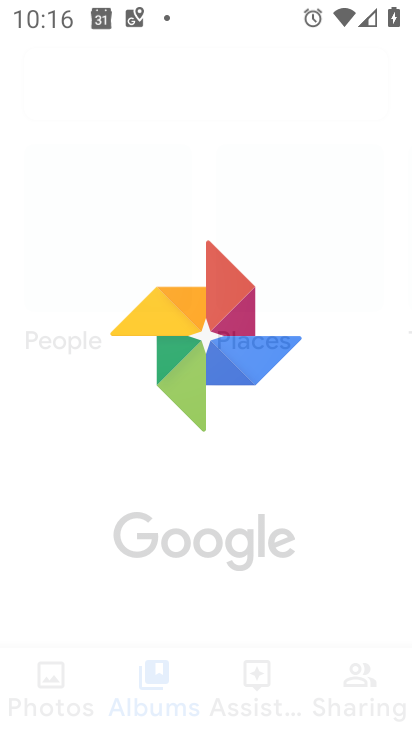
Step 86: task complete